Your task to perform on an android device: What's on the menu at Five Guys? Image 0: 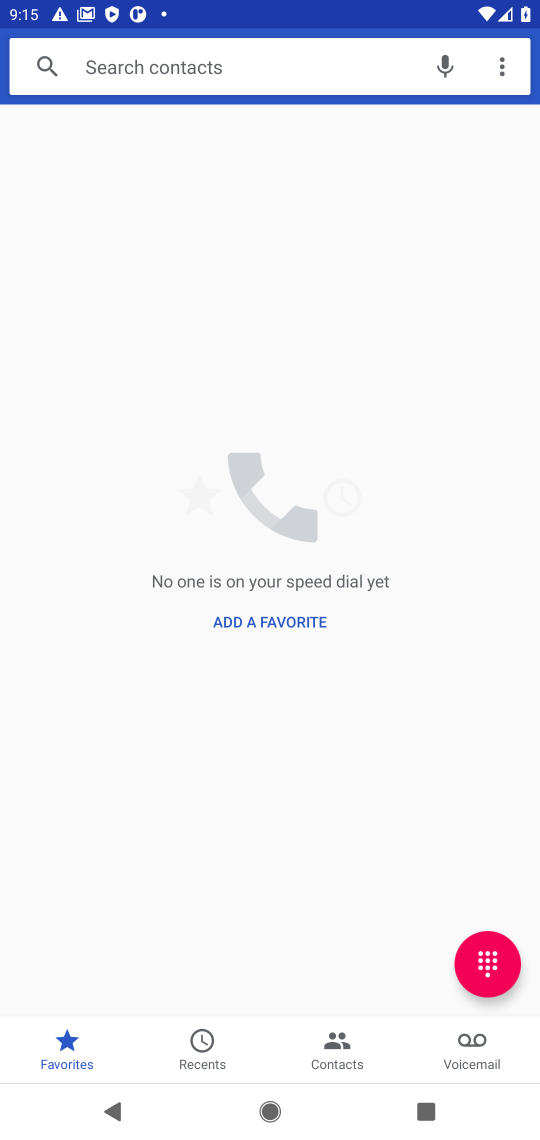
Step 0: press home button
Your task to perform on an android device: What's on the menu at Five Guys? Image 1: 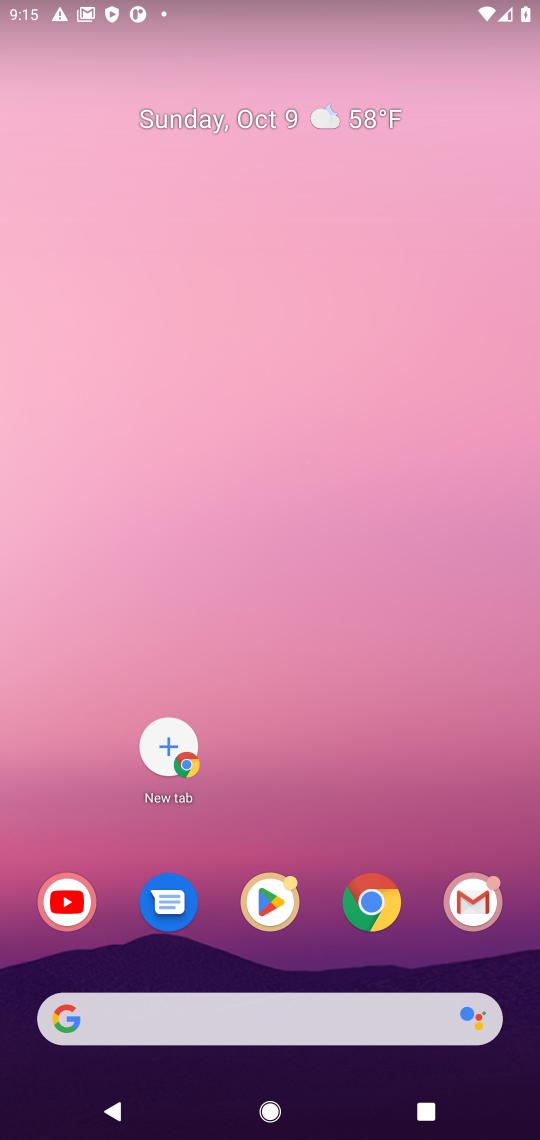
Step 1: click (380, 909)
Your task to perform on an android device: What's on the menu at Five Guys? Image 2: 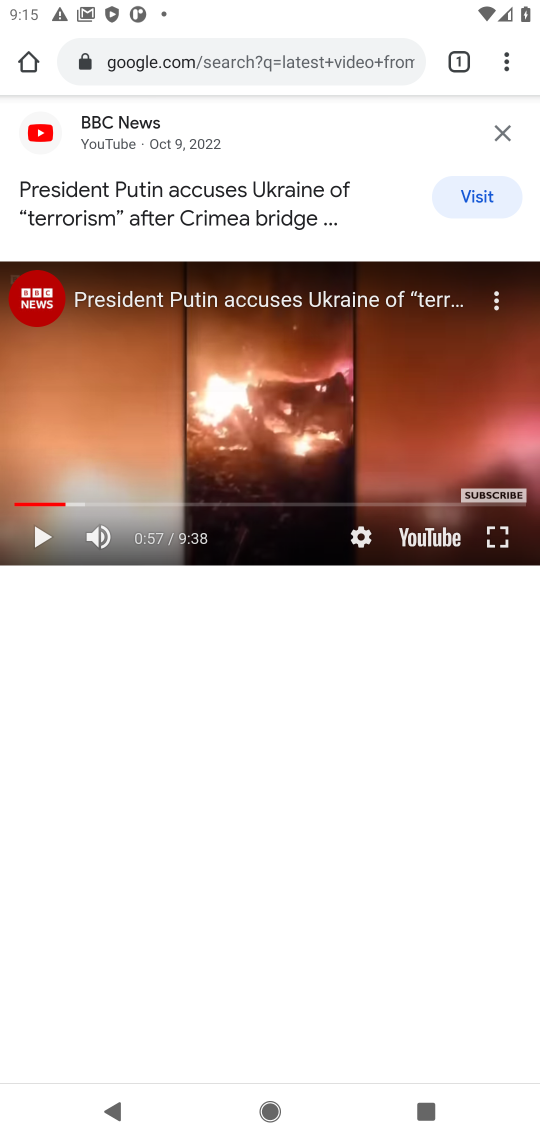
Step 2: click (201, 71)
Your task to perform on an android device: What's on the menu at Five Guys? Image 3: 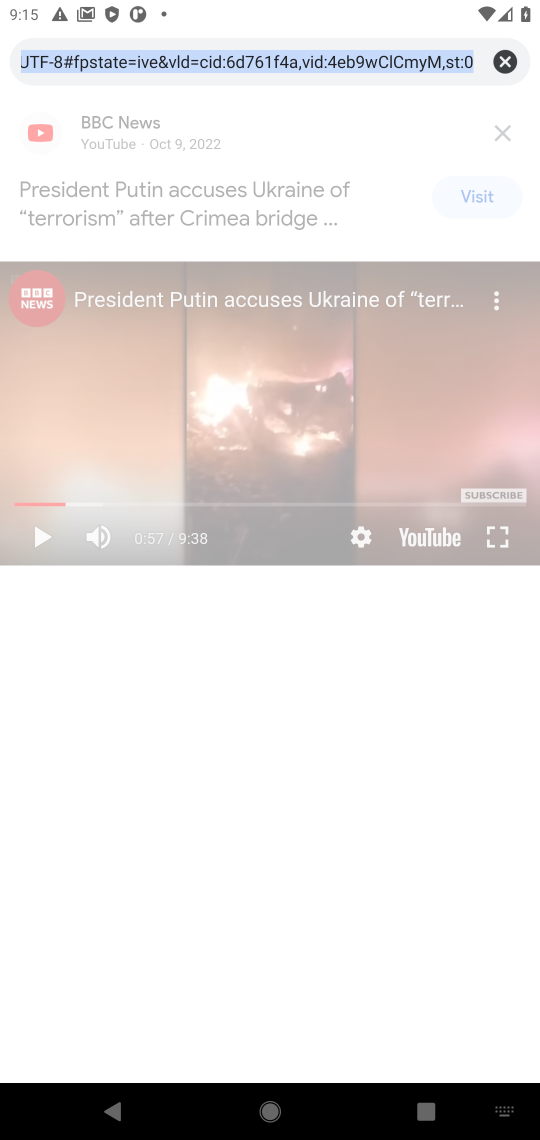
Step 3: type "menu at Five Guys"
Your task to perform on an android device: What's on the menu at Five Guys? Image 4: 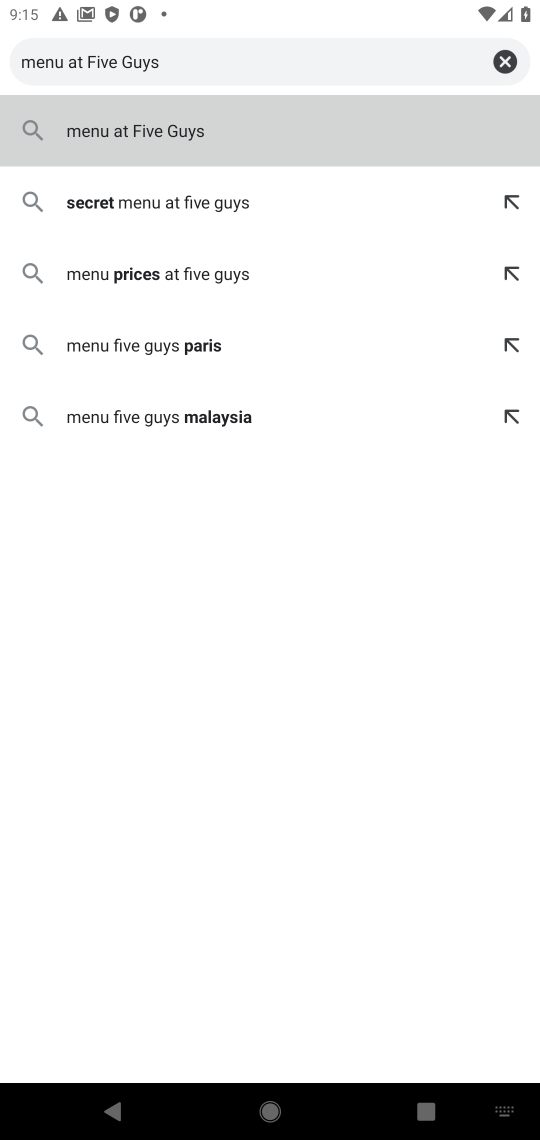
Step 4: type ""
Your task to perform on an android device: What's on the menu at Five Guys? Image 5: 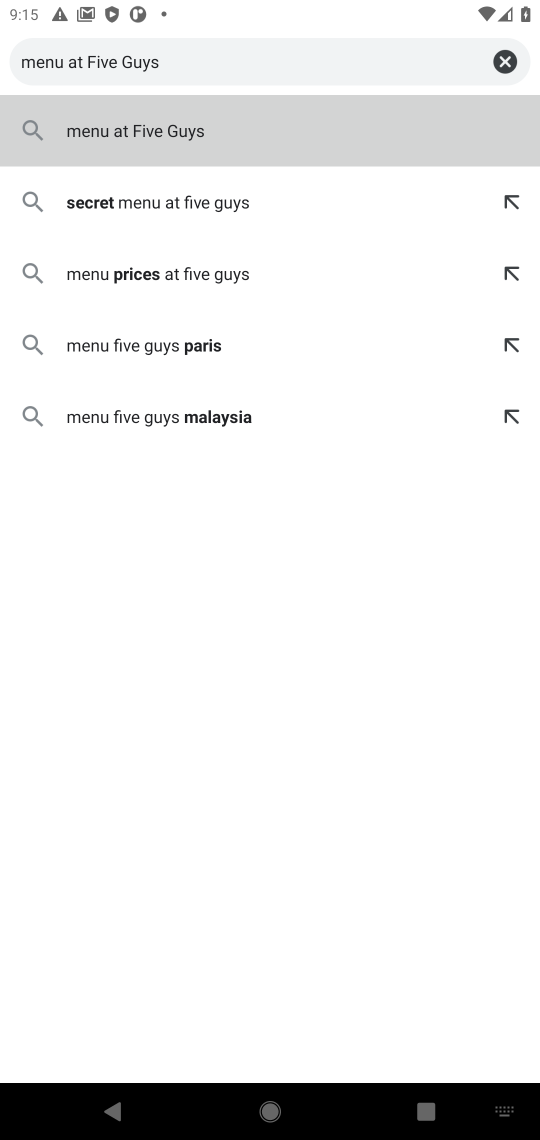
Step 5: click (143, 138)
Your task to perform on an android device: What's on the menu at Five Guys? Image 6: 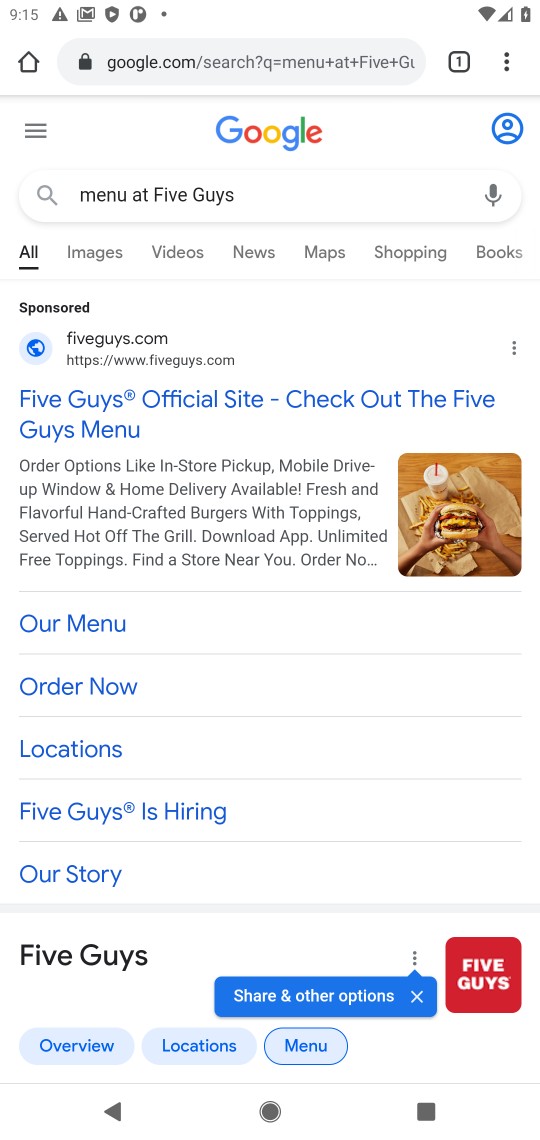
Step 6: drag from (286, 851) to (333, 346)
Your task to perform on an android device: What's on the menu at Five Guys? Image 7: 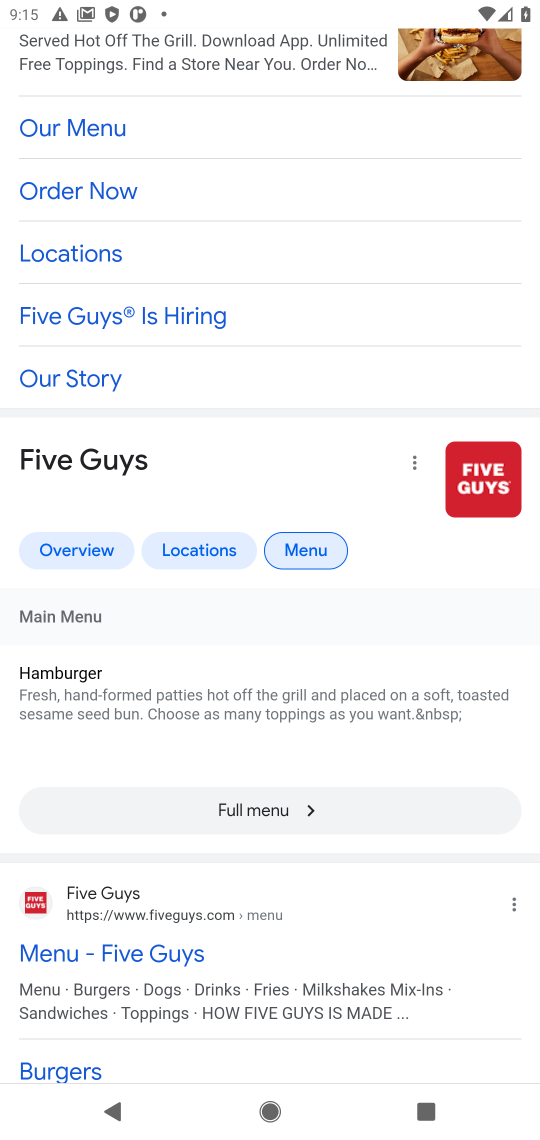
Step 7: click (292, 809)
Your task to perform on an android device: What's on the menu at Five Guys? Image 8: 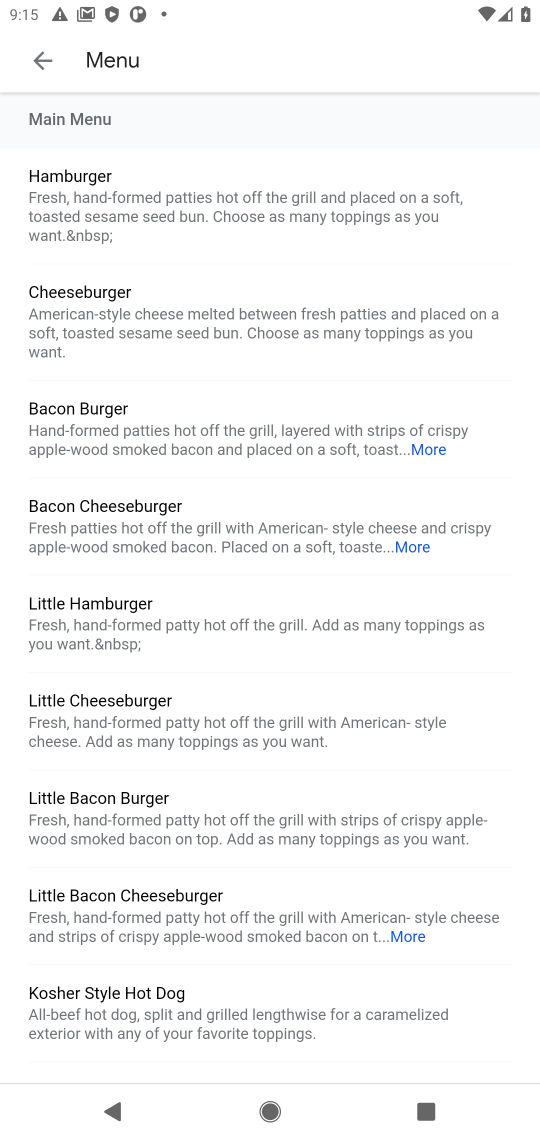
Step 8: task complete